Your task to perform on an android device: Search for seafood restaurants on Google Maps Image 0: 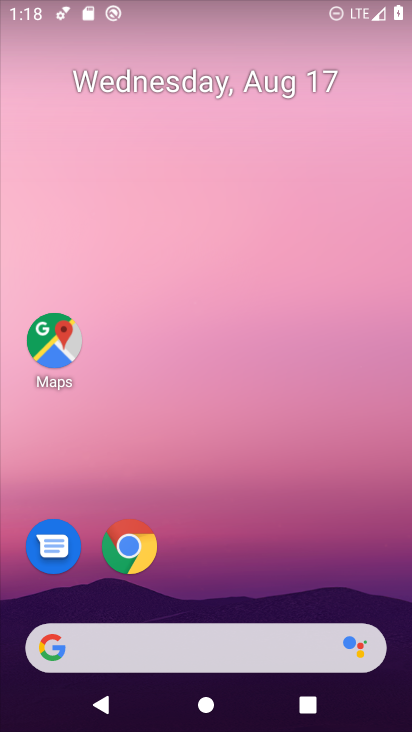
Step 0: click (50, 341)
Your task to perform on an android device: Search for seafood restaurants on Google Maps Image 1: 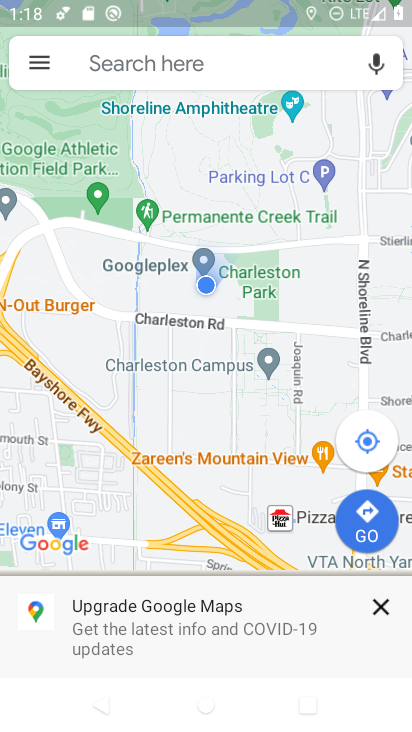
Step 1: click (253, 58)
Your task to perform on an android device: Search for seafood restaurants on Google Maps Image 2: 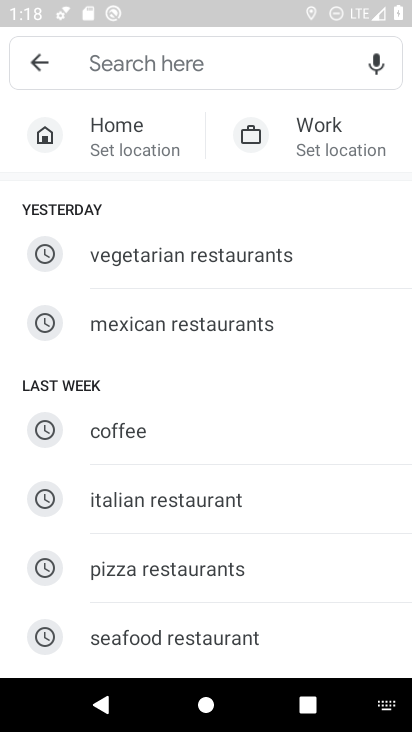
Step 2: click (176, 638)
Your task to perform on an android device: Search for seafood restaurants on Google Maps Image 3: 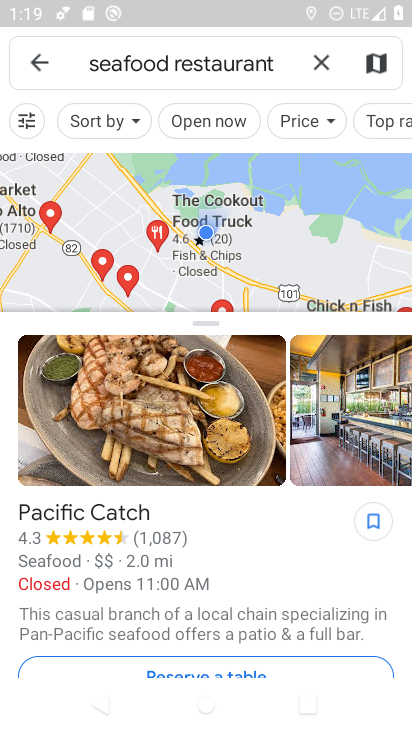
Step 3: task complete